Your task to perform on an android device: When is my next meeting? Image 0: 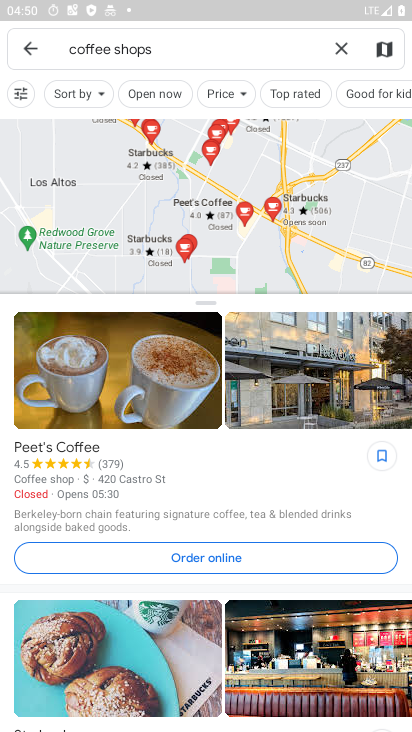
Step 0: press home button
Your task to perform on an android device: When is my next meeting? Image 1: 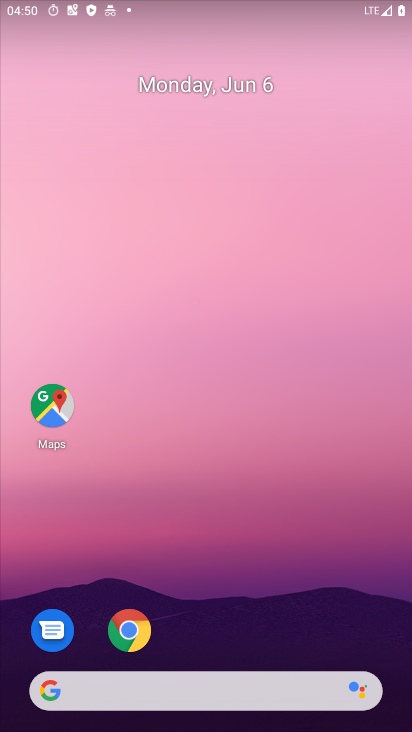
Step 1: drag from (278, 637) to (300, 199)
Your task to perform on an android device: When is my next meeting? Image 2: 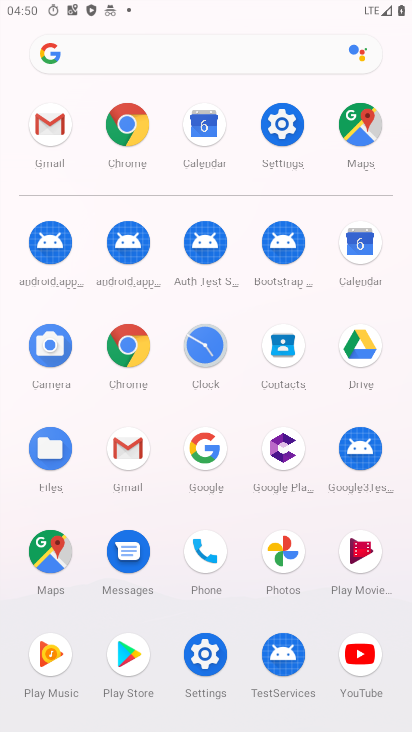
Step 2: click (201, 124)
Your task to perform on an android device: When is my next meeting? Image 3: 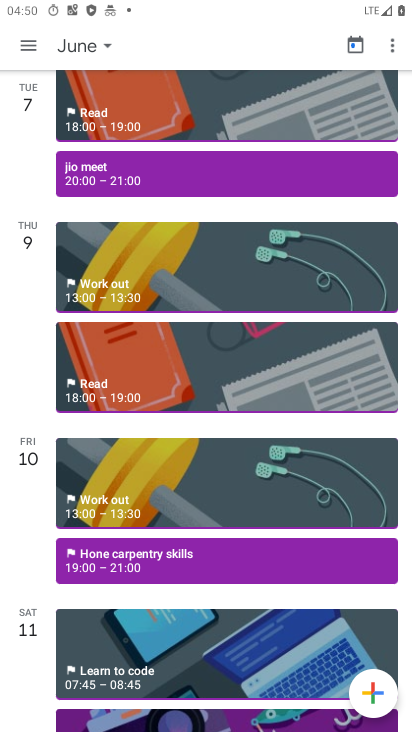
Step 3: task complete